Your task to perform on an android device: toggle javascript in the chrome app Image 0: 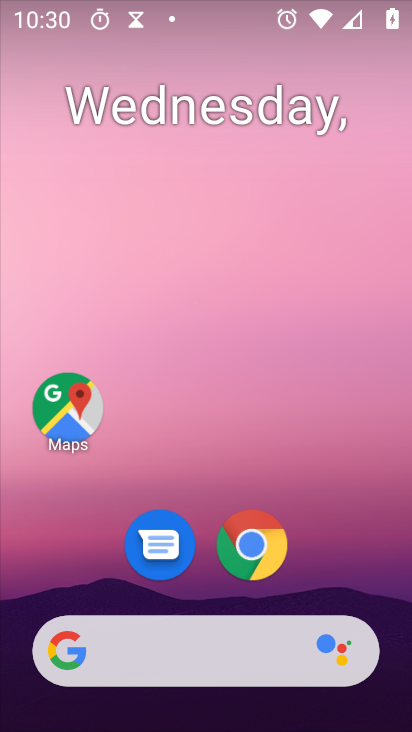
Step 0: press home button
Your task to perform on an android device: toggle javascript in the chrome app Image 1: 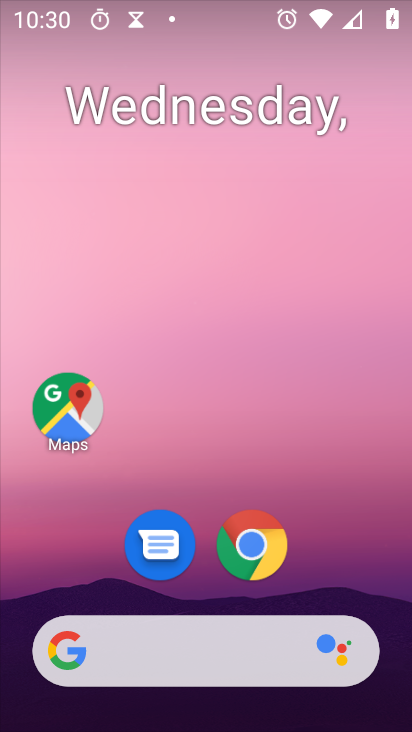
Step 1: click (253, 539)
Your task to perform on an android device: toggle javascript in the chrome app Image 2: 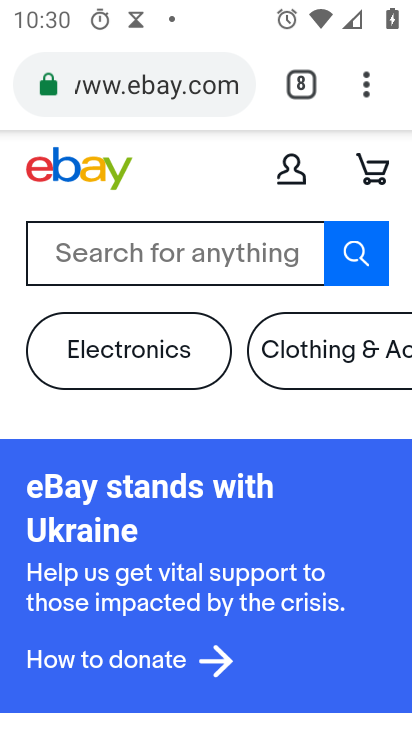
Step 2: drag from (368, 86) to (219, 597)
Your task to perform on an android device: toggle javascript in the chrome app Image 3: 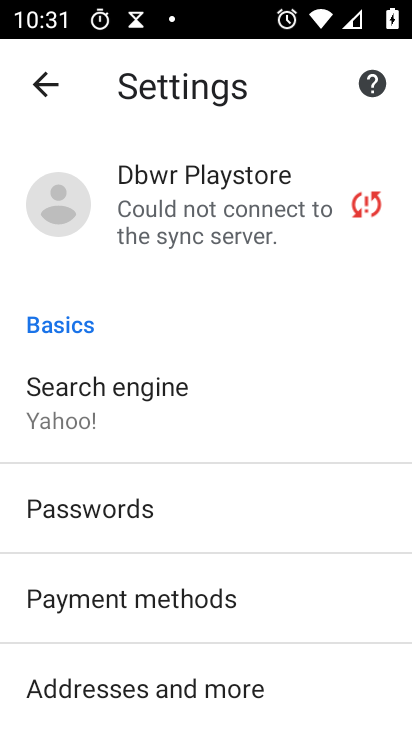
Step 3: drag from (251, 597) to (246, 97)
Your task to perform on an android device: toggle javascript in the chrome app Image 4: 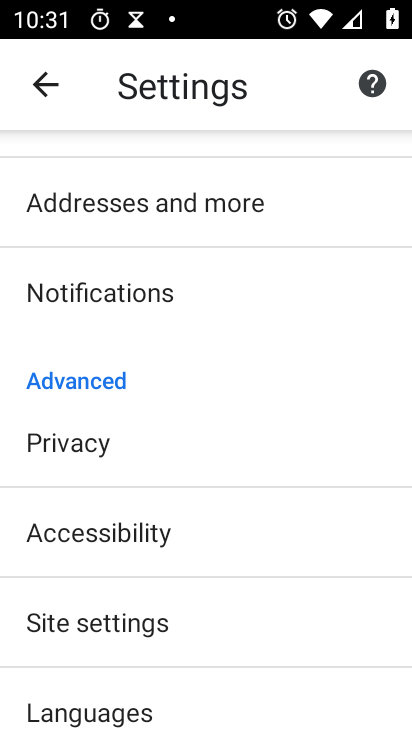
Step 4: drag from (240, 678) to (307, 363)
Your task to perform on an android device: toggle javascript in the chrome app Image 5: 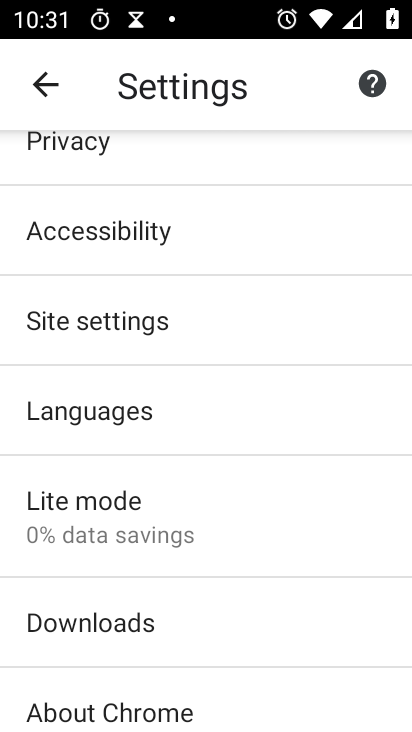
Step 5: click (116, 314)
Your task to perform on an android device: toggle javascript in the chrome app Image 6: 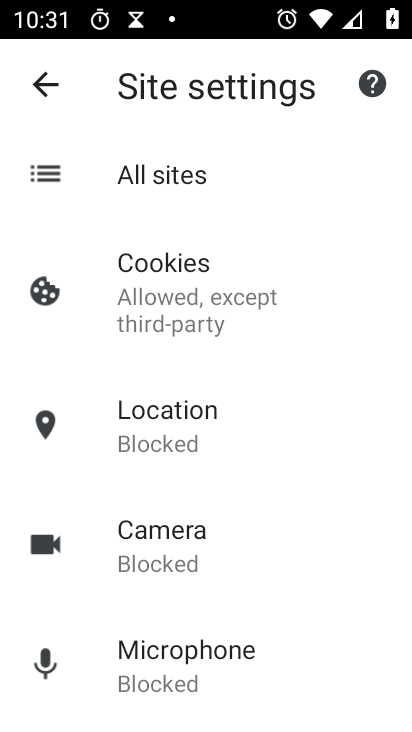
Step 6: drag from (248, 688) to (267, 294)
Your task to perform on an android device: toggle javascript in the chrome app Image 7: 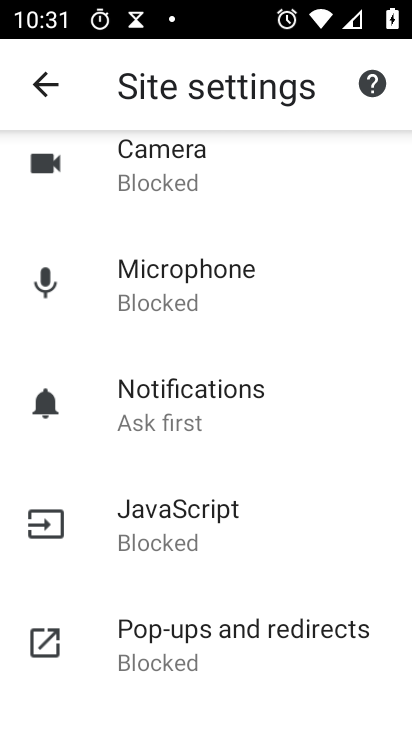
Step 7: click (175, 515)
Your task to perform on an android device: toggle javascript in the chrome app Image 8: 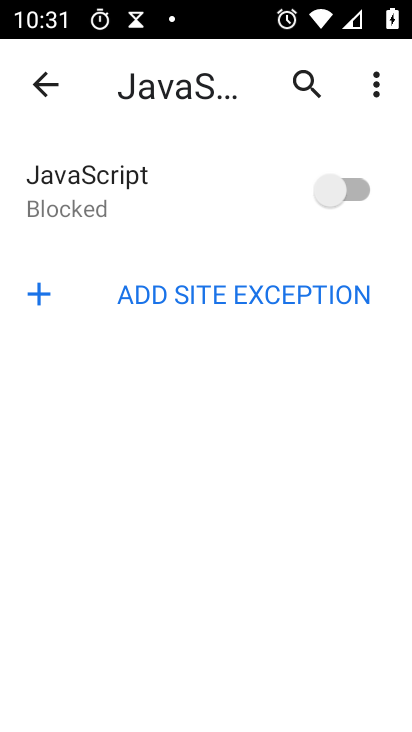
Step 8: click (351, 180)
Your task to perform on an android device: toggle javascript in the chrome app Image 9: 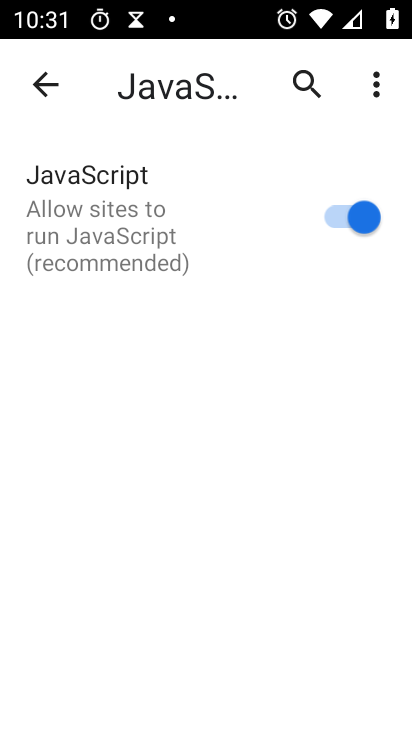
Step 9: task complete